Your task to perform on an android device: Open privacy settings Image 0: 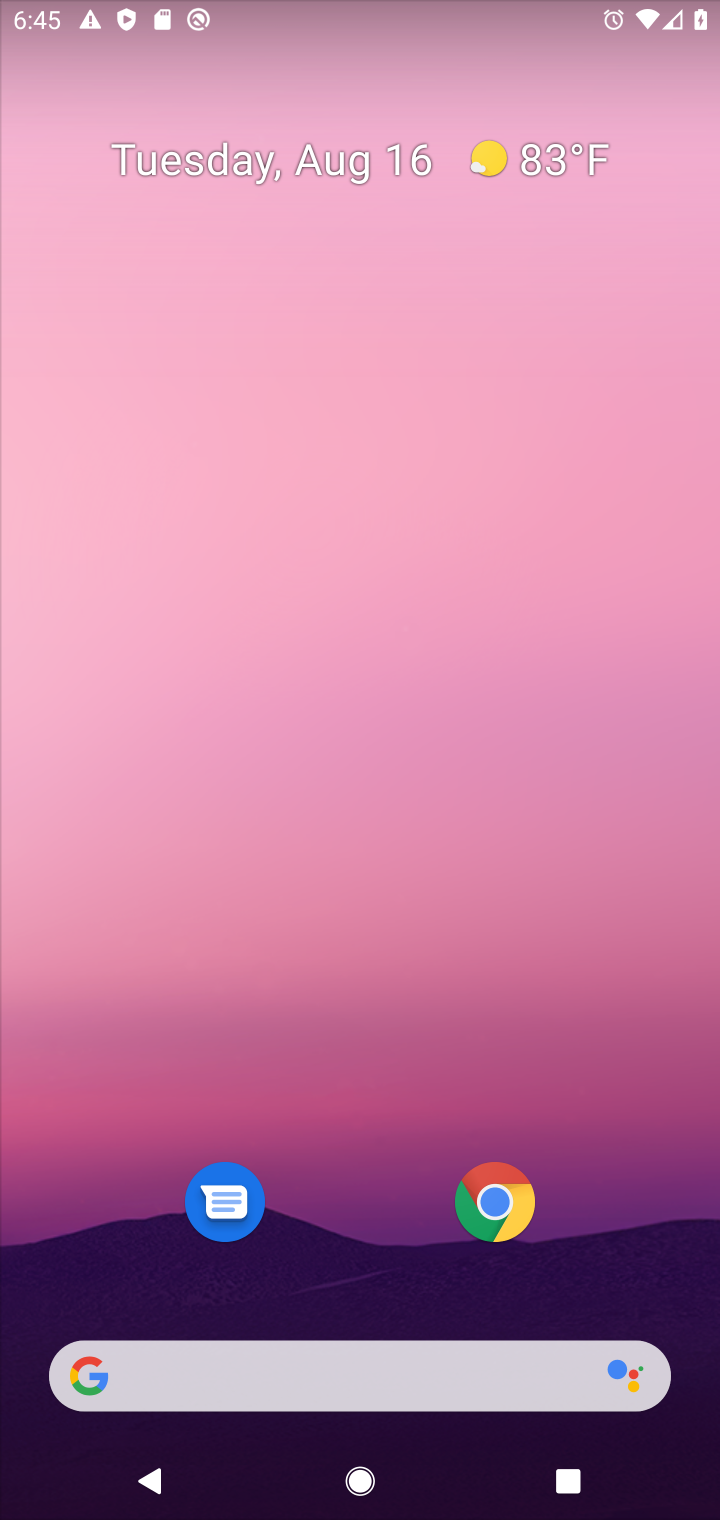
Step 0: drag from (582, 910) to (352, 96)
Your task to perform on an android device: Open privacy settings Image 1: 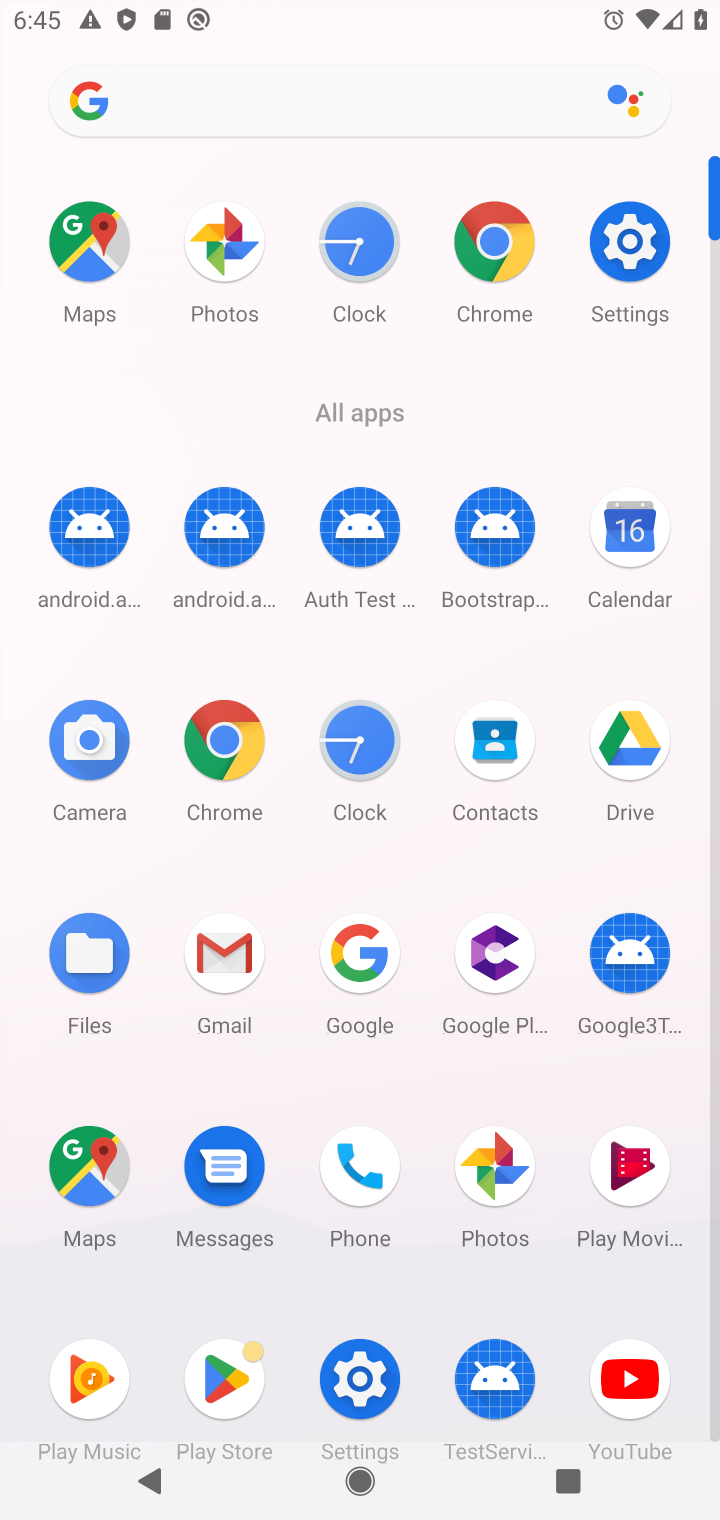
Step 1: click (362, 1391)
Your task to perform on an android device: Open privacy settings Image 2: 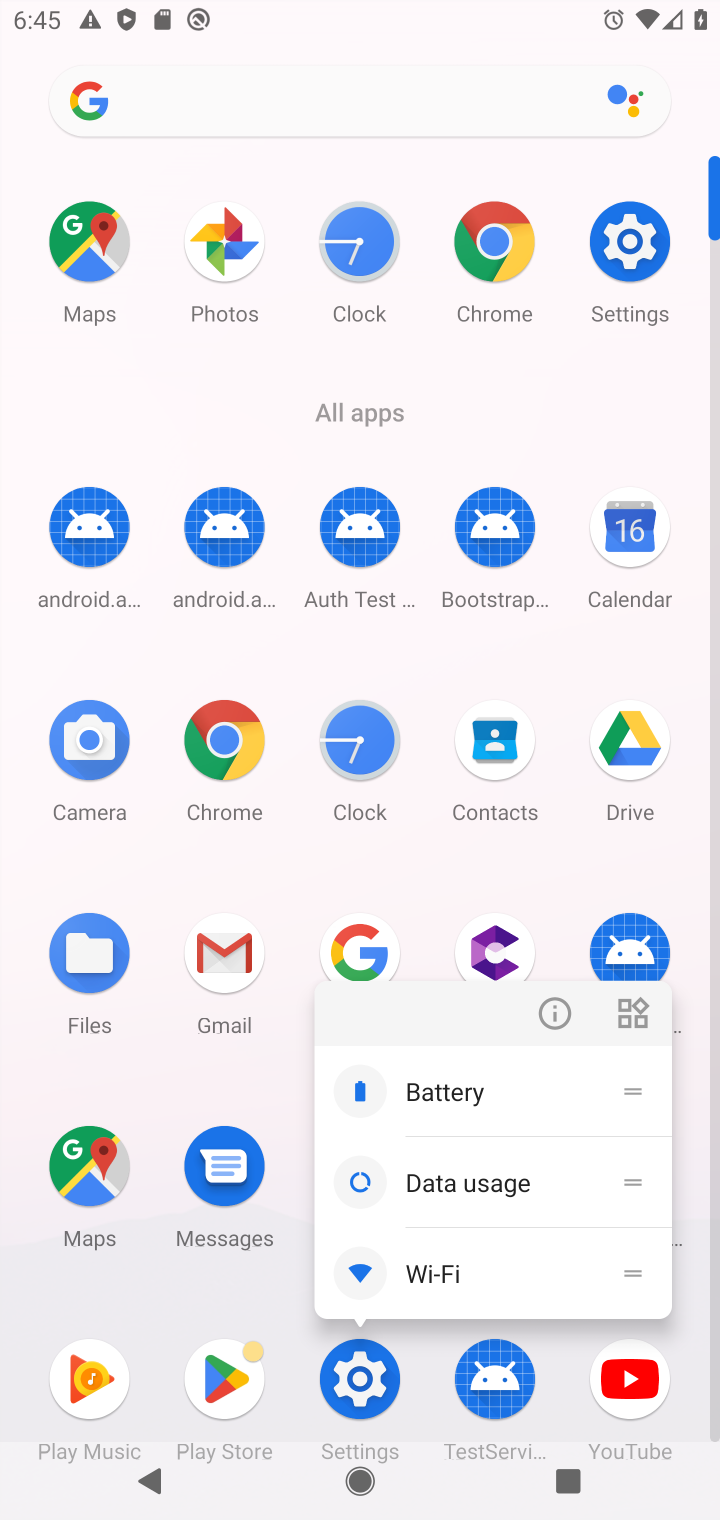
Step 2: click (362, 1391)
Your task to perform on an android device: Open privacy settings Image 3: 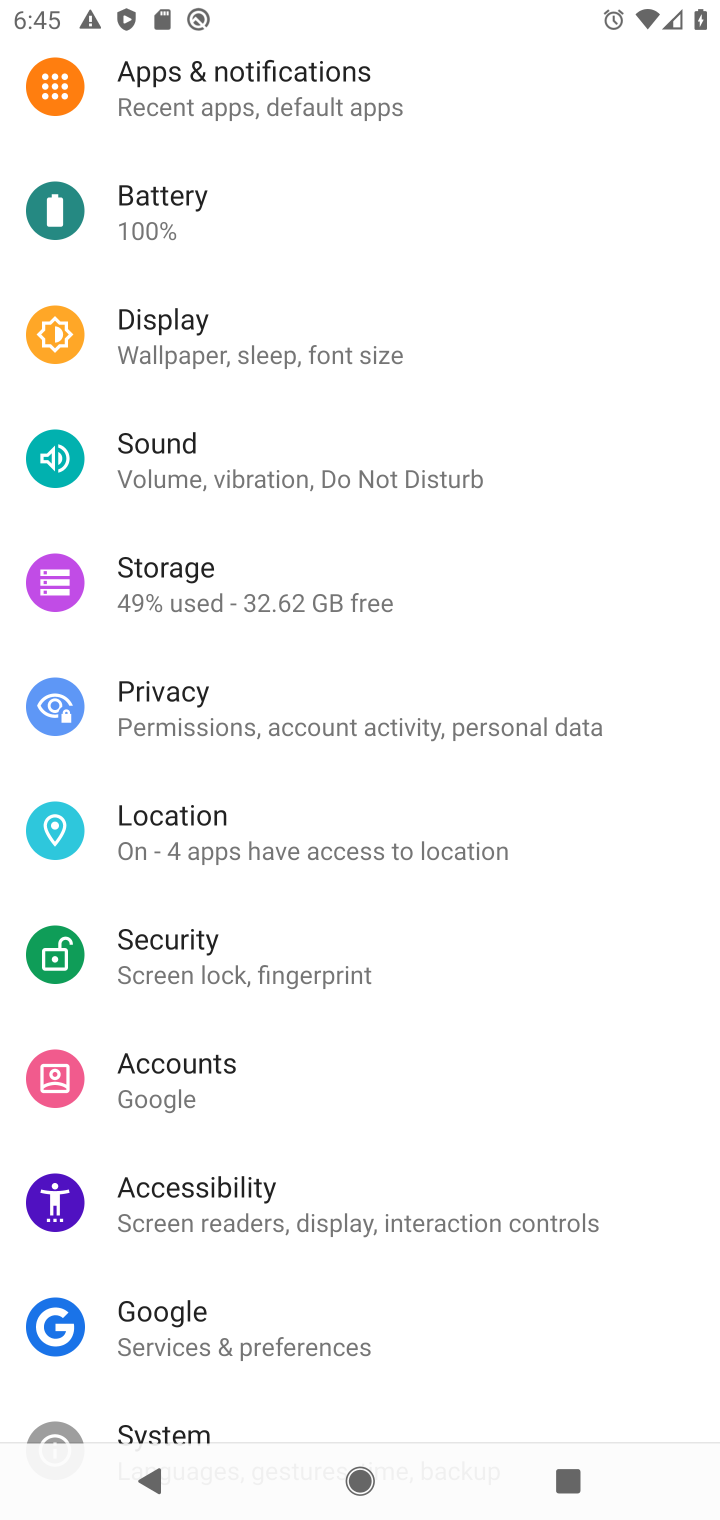
Step 3: click (166, 704)
Your task to perform on an android device: Open privacy settings Image 4: 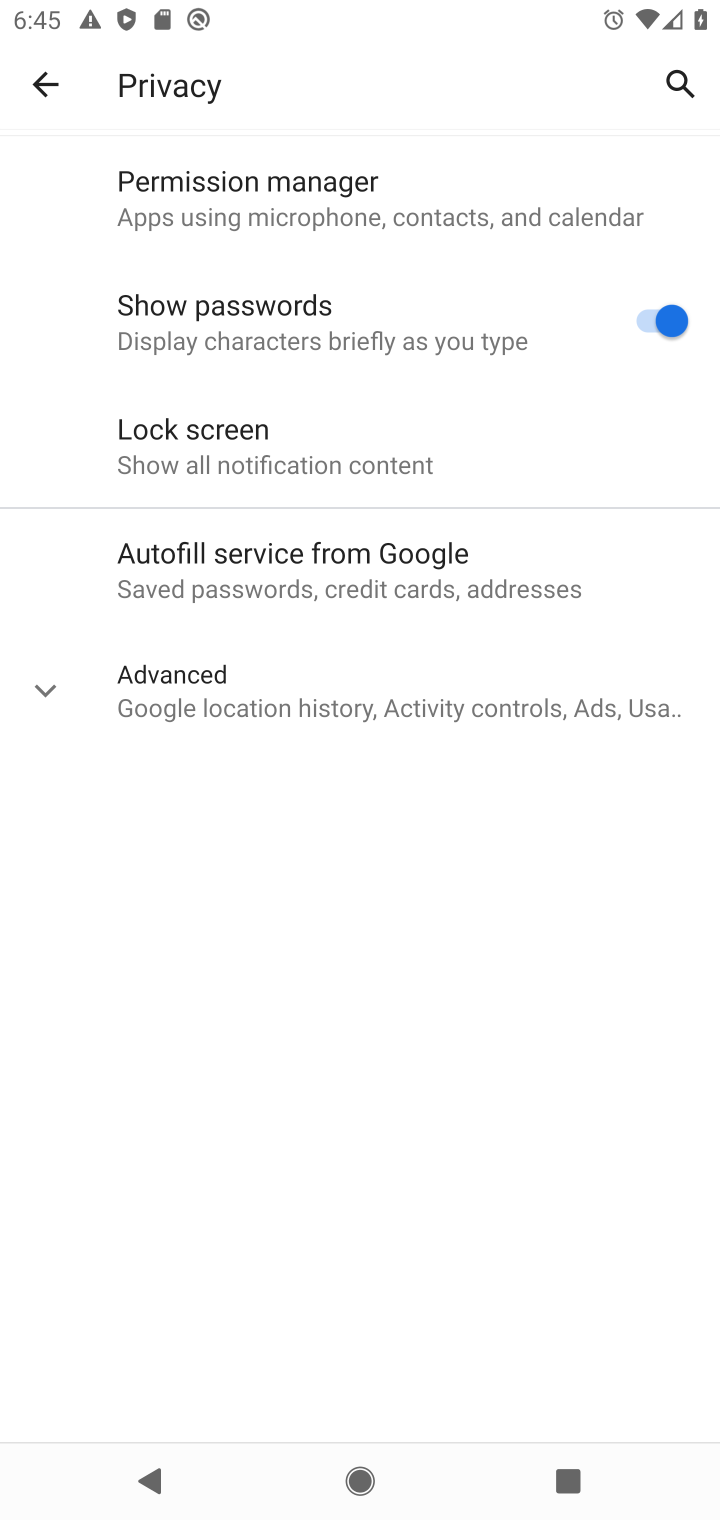
Step 4: task complete